Your task to perform on an android device: change the clock display to digital Image 0: 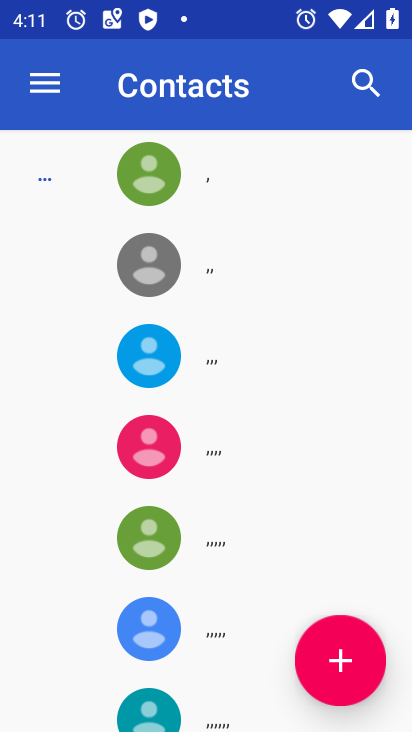
Step 0: press home button
Your task to perform on an android device: change the clock display to digital Image 1: 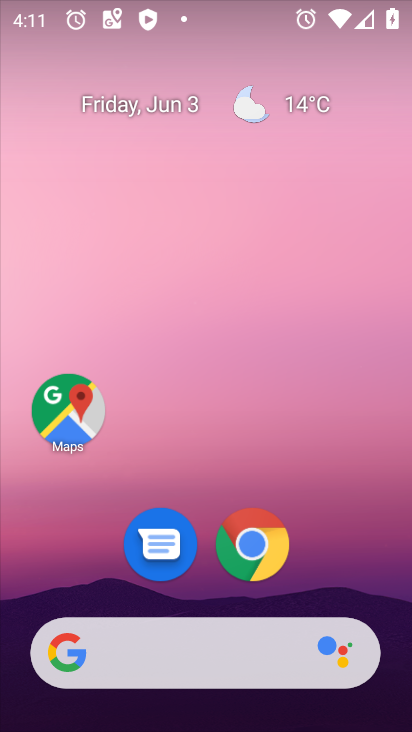
Step 1: drag from (360, 598) to (308, 156)
Your task to perform on an android device: change the clock display to digital Image 2: 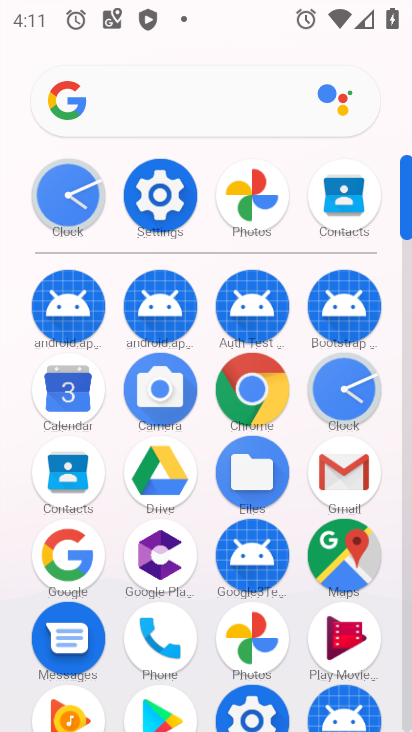
Step 2: click (340, 391)
Your task to perform on an android device: change the clock display to digital Image 3: 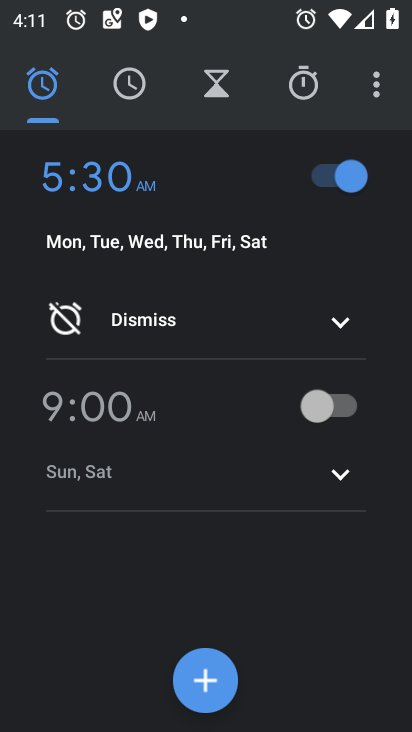
Step 3: click (373, 83)
Your task to perform on an android device: change the clock display to digital Image 4: 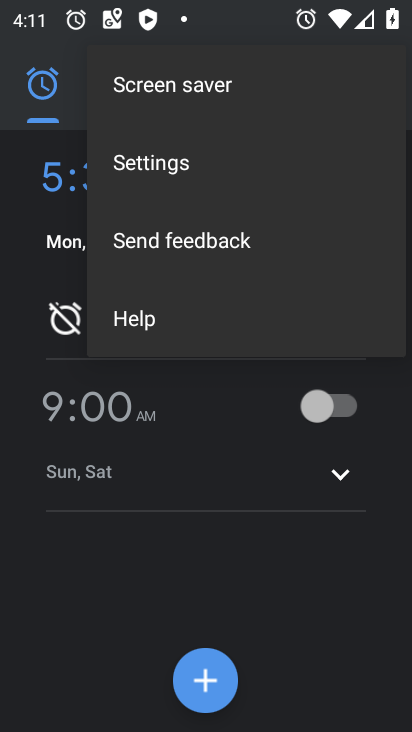
Step 4: click (109, 176)
Your task to perform on an android device: change the clock display to digital Image 5: 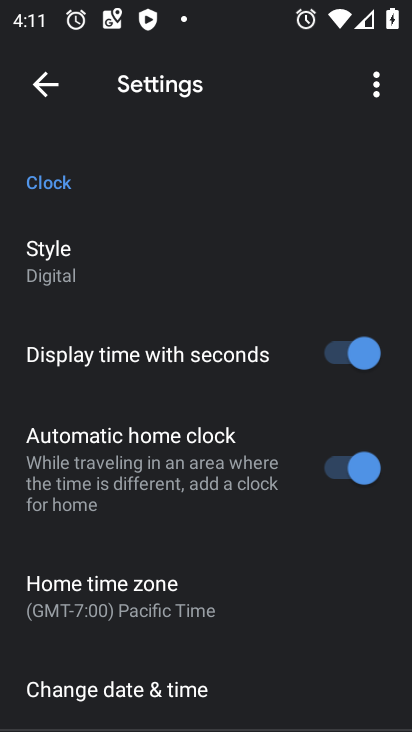
Step 5: task complete